Your task to perform on an android device: Open Youtube and go to "Your channel" Image 0: 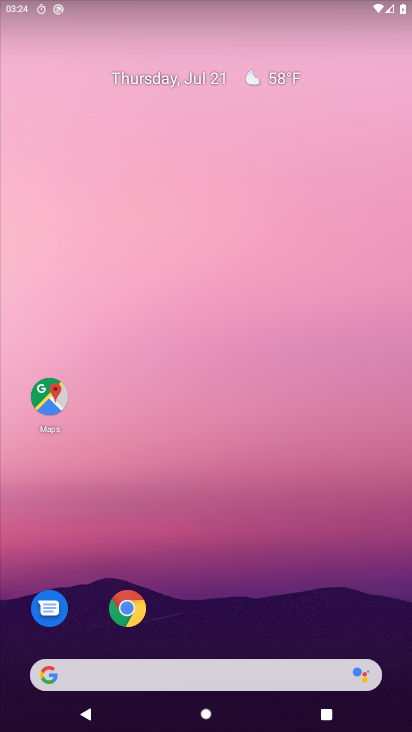
Step 0: drag from (227, 607) to (210, 51)
Your task to perform on an android device: Open Youtube and go to "Your channel" Image 1: 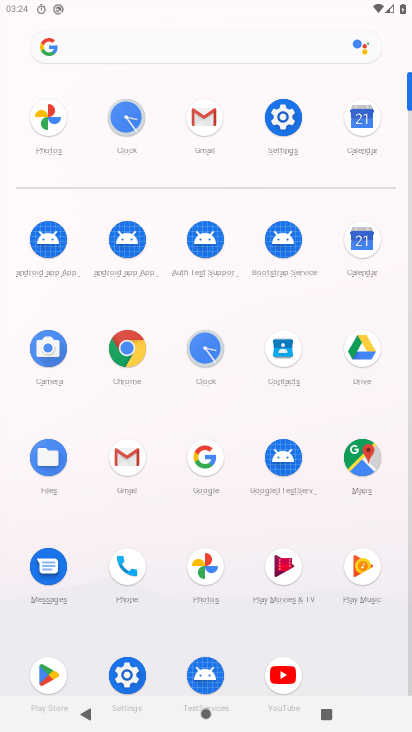
Step 1: click (281, 667)
Your task to perform on an android device: Open Youtube and go to "Your channel" Image 2: 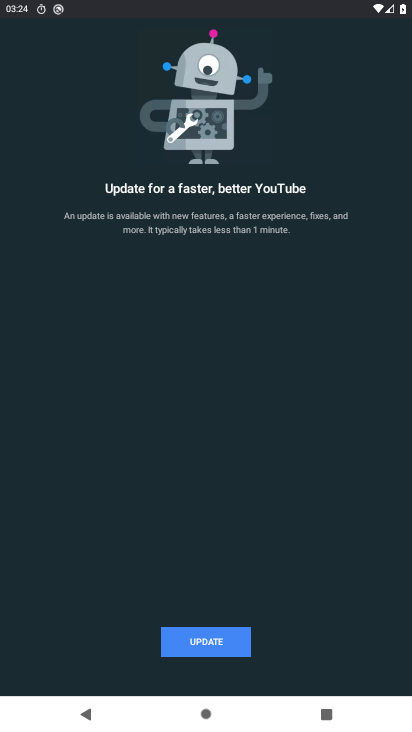
Step 2: click (204, 636)
Your task to perform on an android device: Open Youtube and go to "Your channel" Image 3: 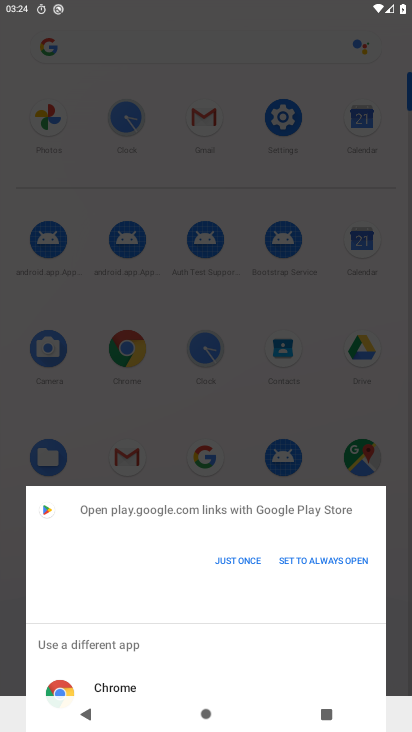
Step 3: click (240, 560)
Your task to perform on an android device: Open Youtube and go to "Your channel" Image 4: 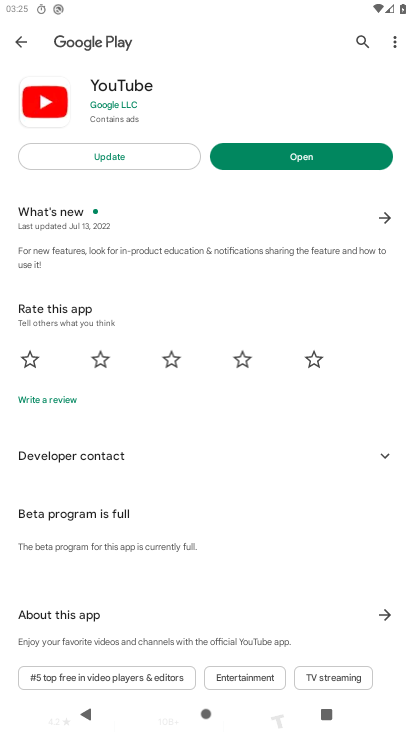
Step 4: click (112, 154)
Your task to perform on an android device: Open Youtube and go to "Your channel" Image 5: 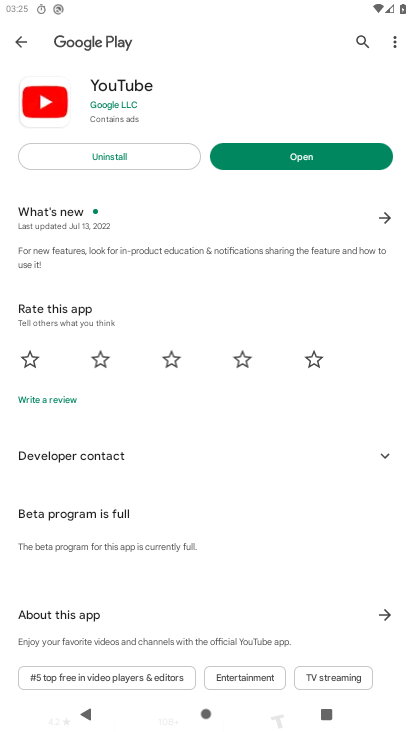
Step 5: click (310, 153)
Your task to perform on an android device: Open Youtube and go to "Your channel" Image 6: 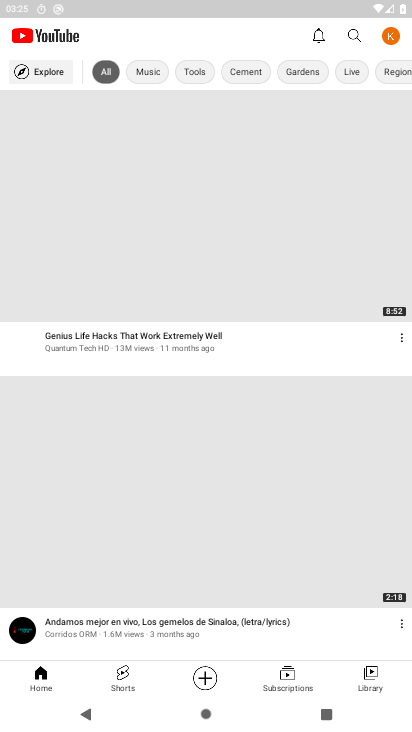
Step 6: click (390, 31)
Your task to perform on an android device: Open Youtube and go to "Your channel" Image 7: 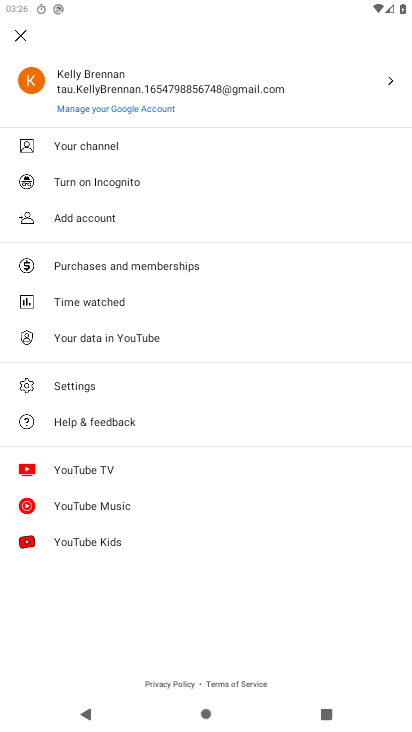
Step 7: click (92, 142)
Your task to perform on an android device: Open Youtube and go to "Your channel" Image 8: 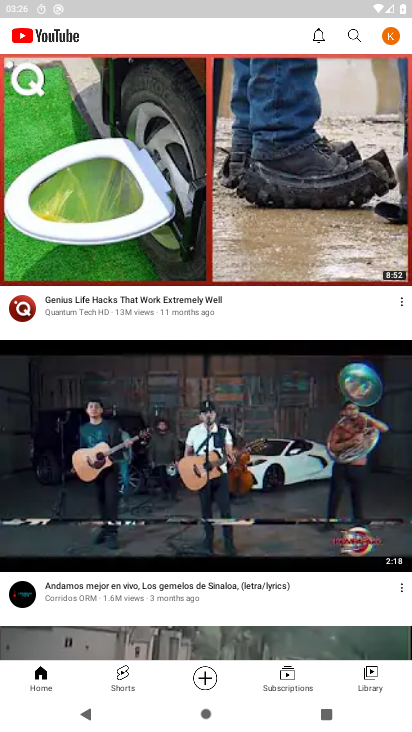
Step 8: task complete